Your task to perform on an android device: Set the phone to "Do not disturb". Image 0: 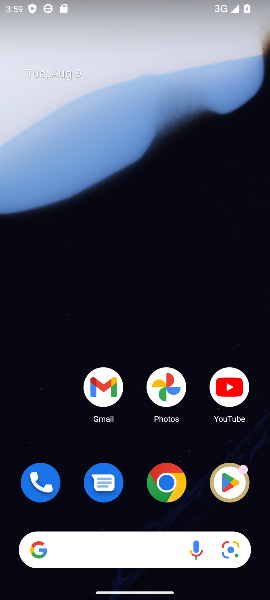
Step 0: drag from (139, 385) to (139, 24)
Your task to perform on an android device: Set the phone to "Do not disturb". Image 1: 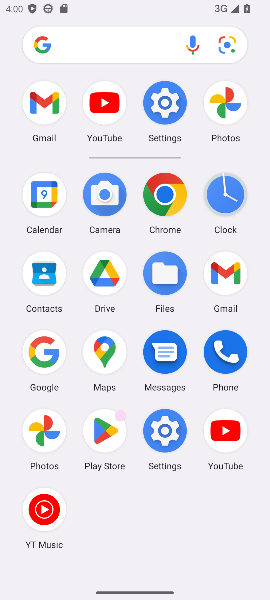
Step 1: click (176, 109)
Your task to perform on an android device: Set the phone to "Do not disturb". Image 2: 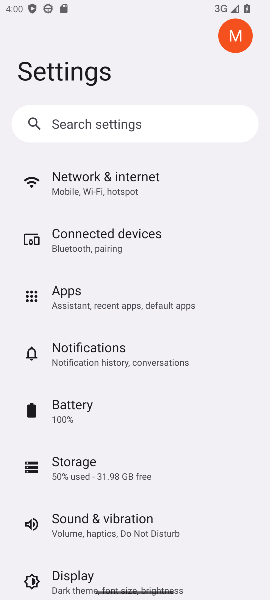
Step 2: drag from (132, 528) to (134, 302)
Your task to perform on an android device: Set the phone to "Do not disturb". Image 3: 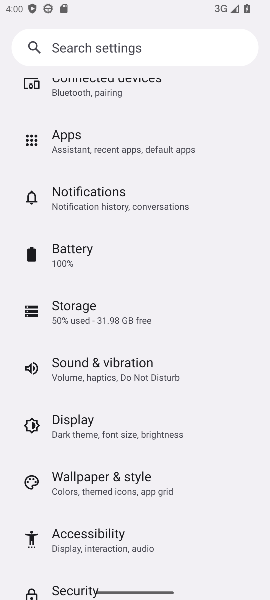
Step 3: drag from (139, 501) to (146, 249)
Your task to perform on an android device: Set the phone to "Do not disturb". Image 4: 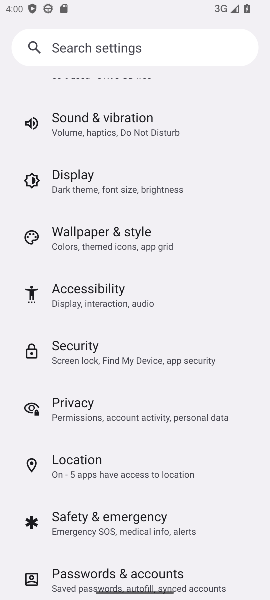
Step 4: drag from (150, 459) to (151, 357)
Your task to perform on an android device: Set the phone to "Do not disturb". Image 5: 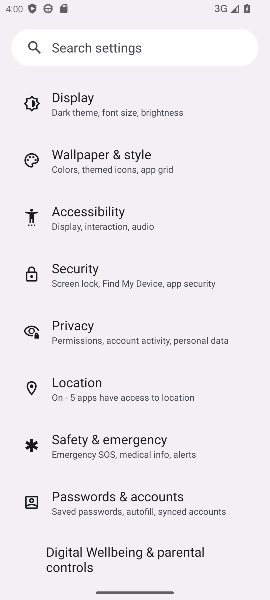
Step 5: drag from (144, 508) to (163, 272)
Your task to perform on an android device: Set the phone to "Do not disturb". Image 6: 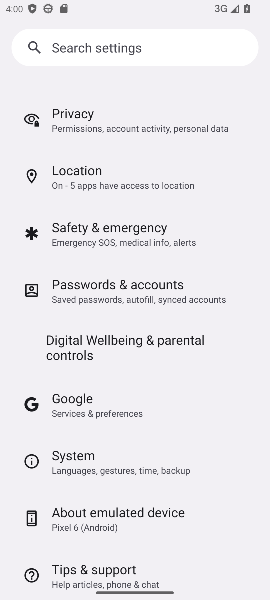
Step 6: drag from (139, 191) to (156, 416)
Your task to perform on an android device: Set the phone to "Do not disturb". Image 7: 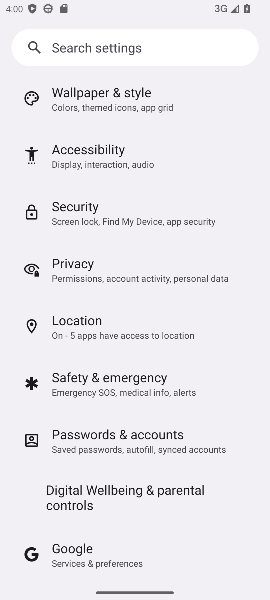
Step 7: drag from (148, 173) to (148, 431)
Your task to perform on an android device: Set the phone to "Do not disturb". Image 8: 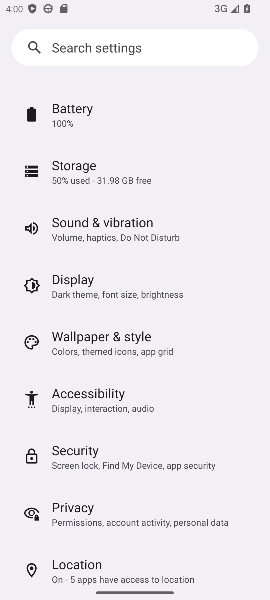
Step 8: click (121, 236)
Your task to perform on an android device: Set the phone to "Do not disturb". Image 9: 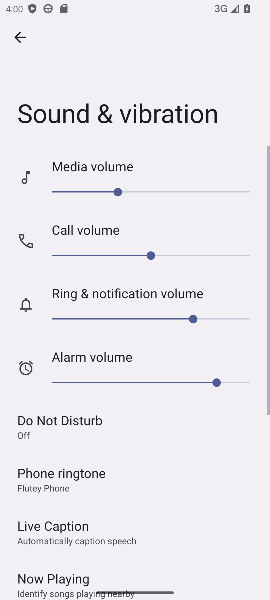
Step 9: drag from (182, 457) to (183, 243)
Your task to perform on an android device: Set the phone to "Do not disturb". Image 10: 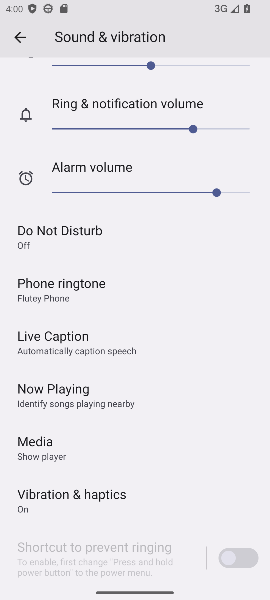
Step 10: click (55, 239)
Your task to perform on an android device: Set the phone to "Do not disturb". Image 11: 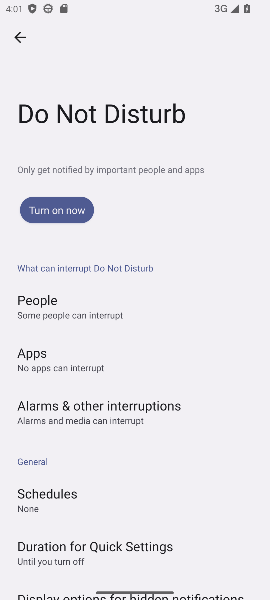
Step 11: click (61, 209)
Your task to perform on an android device: Set the phone to "Do not disturb". Image 12: 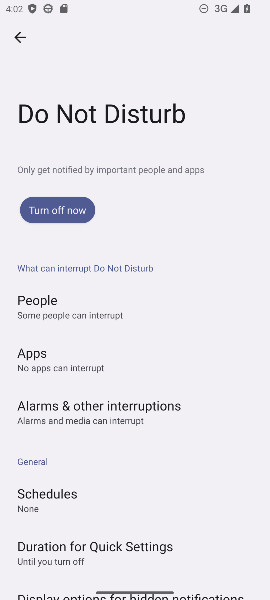
Step 12: task complete